Your task to perform on an android device: Toggle the flashlight Image 0: 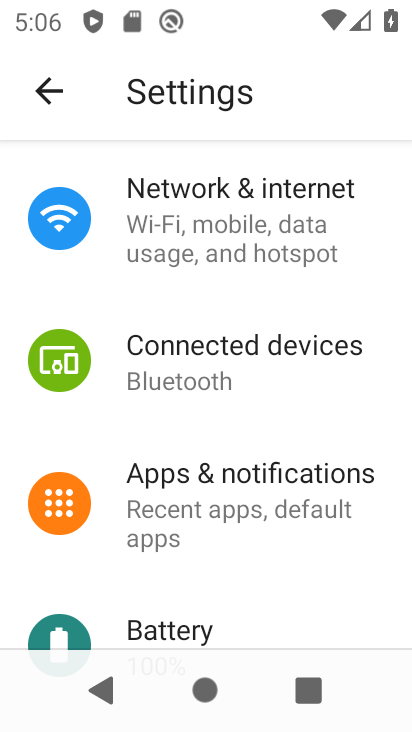
Step 0: press home button
Your task to perform on an android device: Toggle the flashlight Image 1: 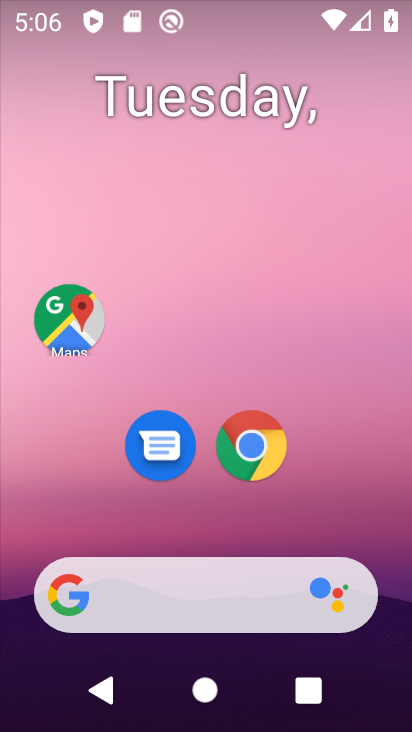
Step 1: task complete